Your task to perform on an android device: Open the Play Movies app and select the watchlist tab. Image 0: 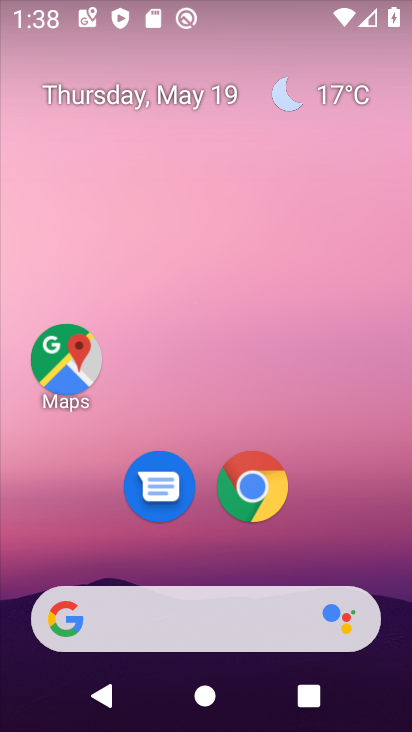
Step 0: drag from (345, 543) to (236, 42)
Your task to perform on an android device: Open the Play Movies app and select the watchlist tab. Image 1: 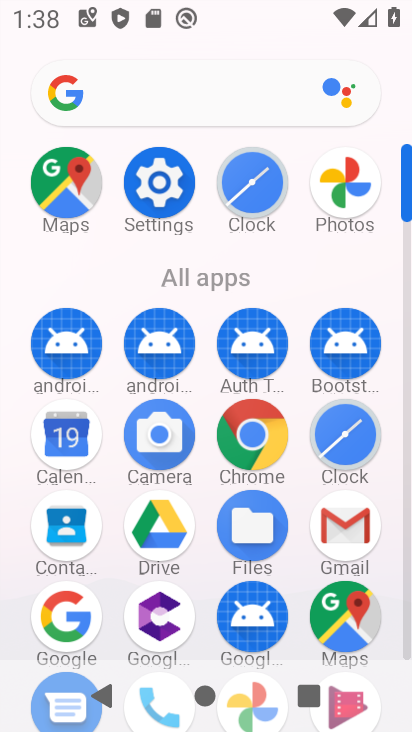
Step 1: drag from (298, 586) to (338, 145)
Your task to perform on an android device: Open the Play Movies app and select the watchlist tab. Image 2: 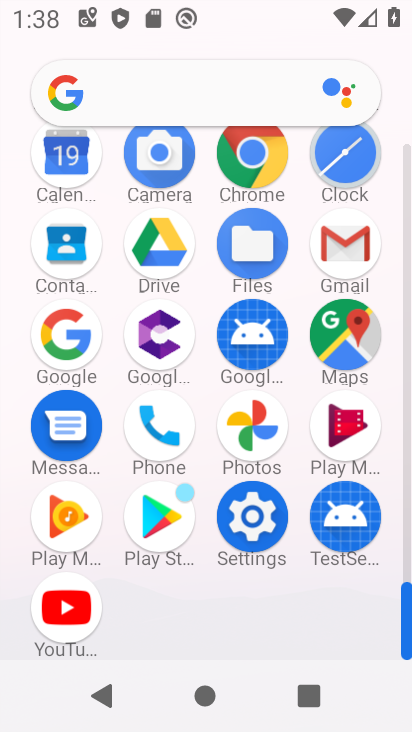
Step 2: click (350, 429)
Your task to perform on an android device: Open the Play Movies app and select the watchlist tab. Image 3: 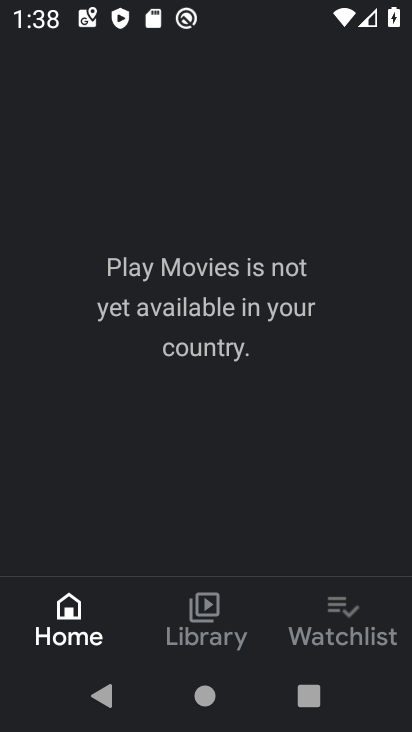
Step 3: click (366, 623)
Your task to perform on an android device: Open the Play Movies app and select the watchlist tab. Image 4: 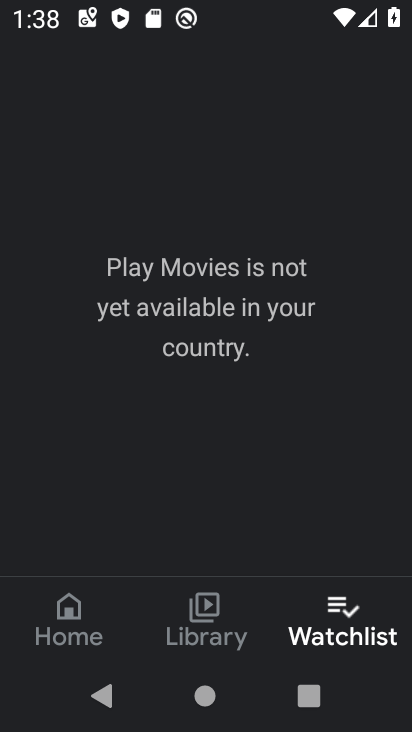
Step 4: task complete